Your task to perform on an android device: Search for the Nintendo Switch. Image 0: 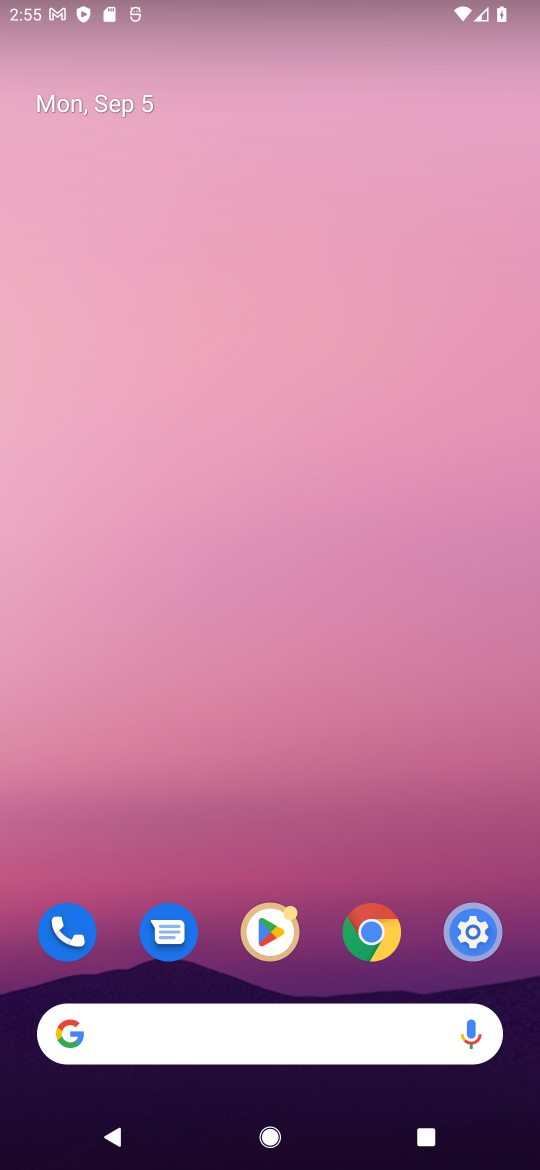
Step 0: click (205, 1053)
Your task to perform on an android device: Search for the Nintendo Switch. Image 1: 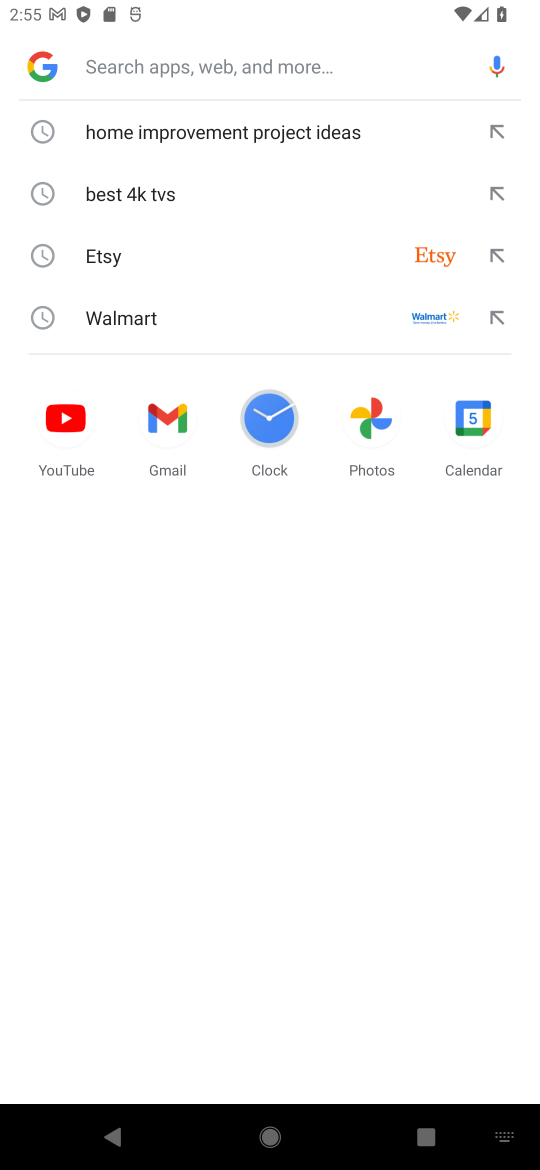
Step 1: type "Nintendo Switch."
Your task to perform on an android device: Search for the Nintendo Switch. Image 2: 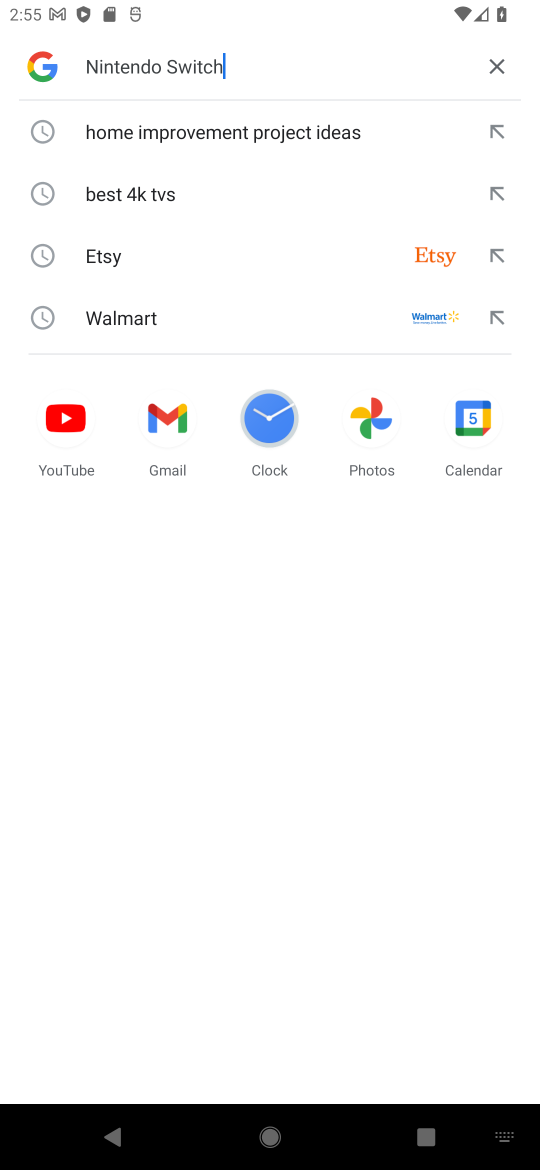
Step 2: type ""
Your task to perform on an android device: Search for the Nintendo Switch. Image 3: 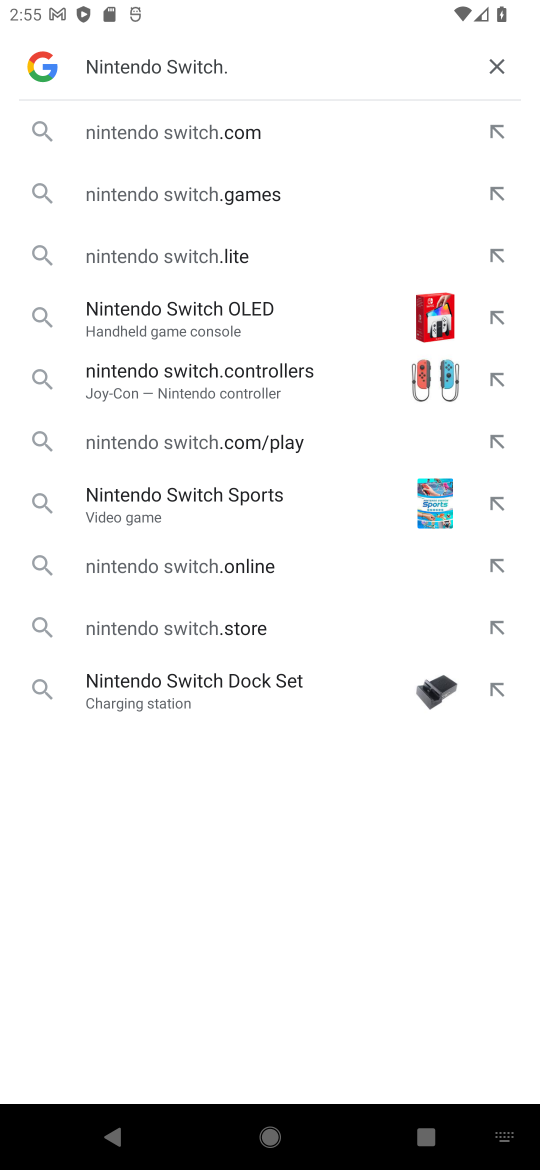
Step 3: click (239, 110)
Your task to perform on an android device: Search for the Nintendo Switch. Image 4: 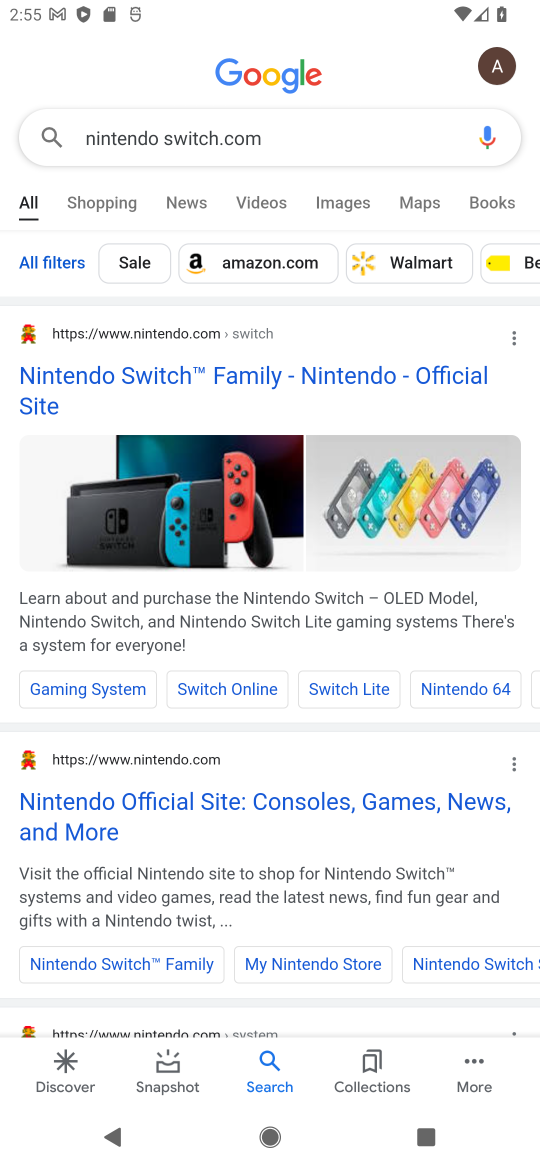
Step 4: task complete